Your task to perform on an android device: open wifi settings Image 0: 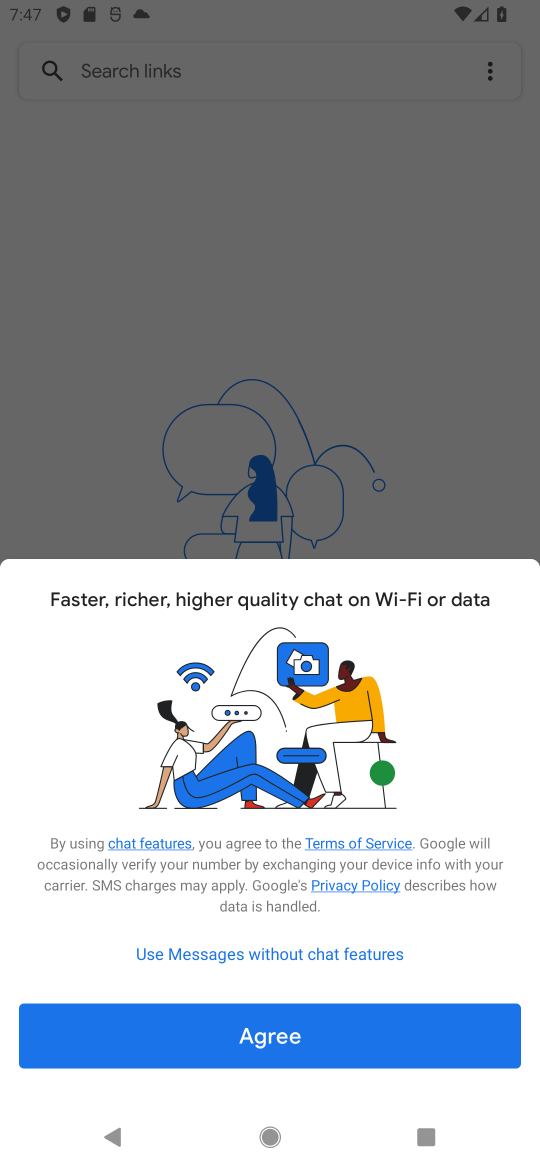
Step 0: press home button
Your task to perform on an android device: open wifi settings Image 1: 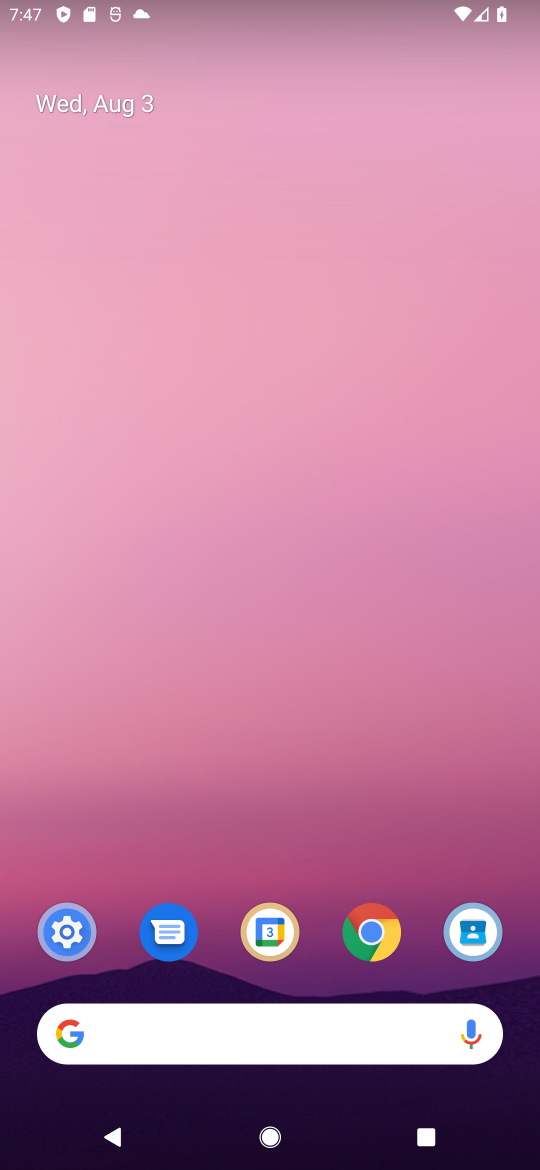
Step 1: click (59, 928)
Your task to perform on an android device: open wifi settings Image 2: 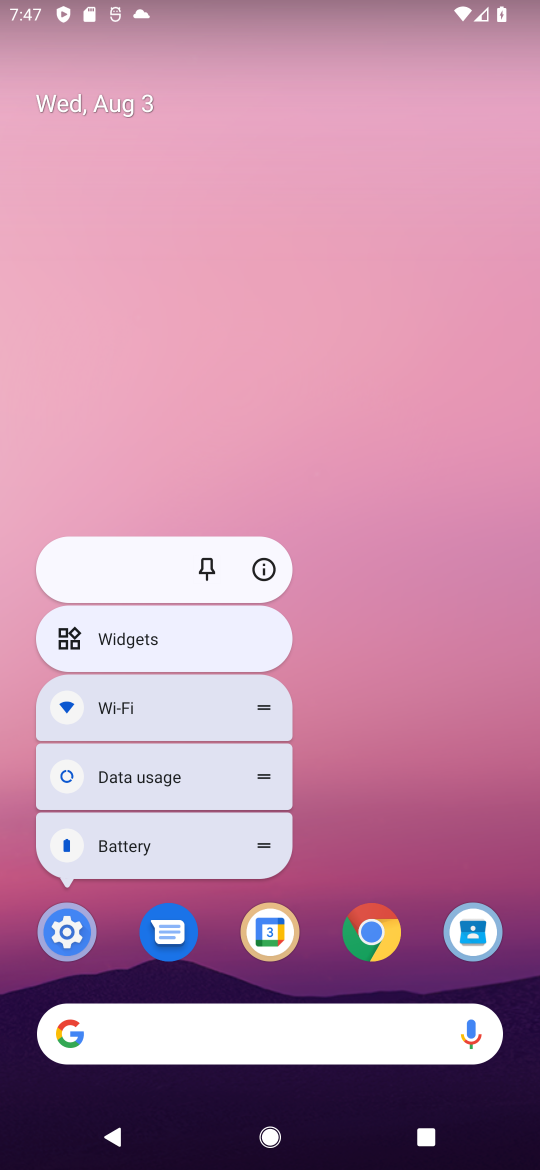
Step 2: click (59, 928)
Your task to perform on an android device: open wifi settings Image 3: 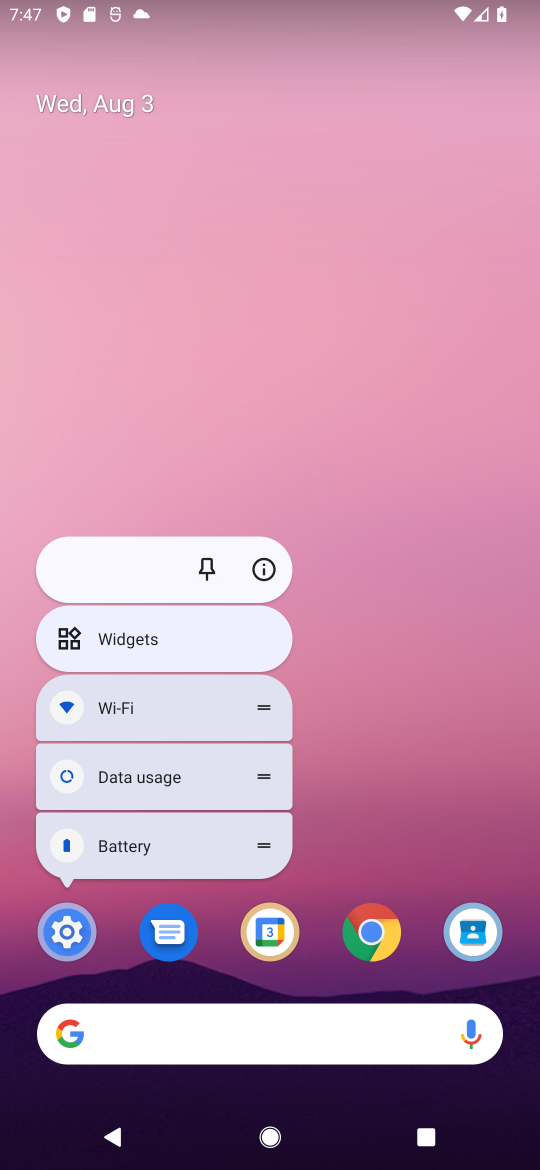
Step 3: click (59, 928)
Your task to perform on an android device: open wifi settings Image 4: 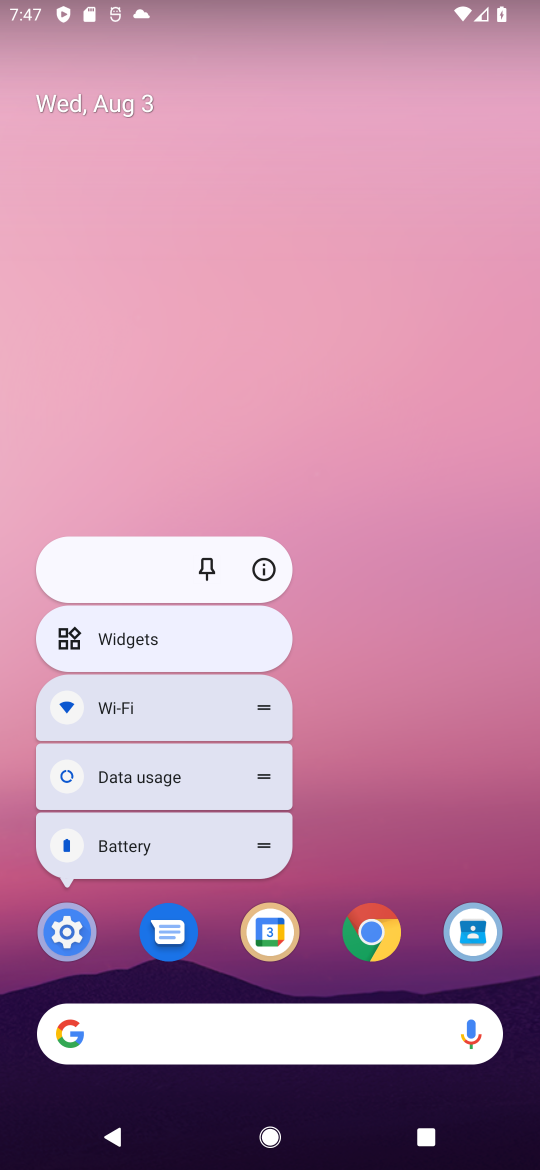
Step 4: click (59, 928)
Your task to perform on an android device: open wifi settings Image 5: 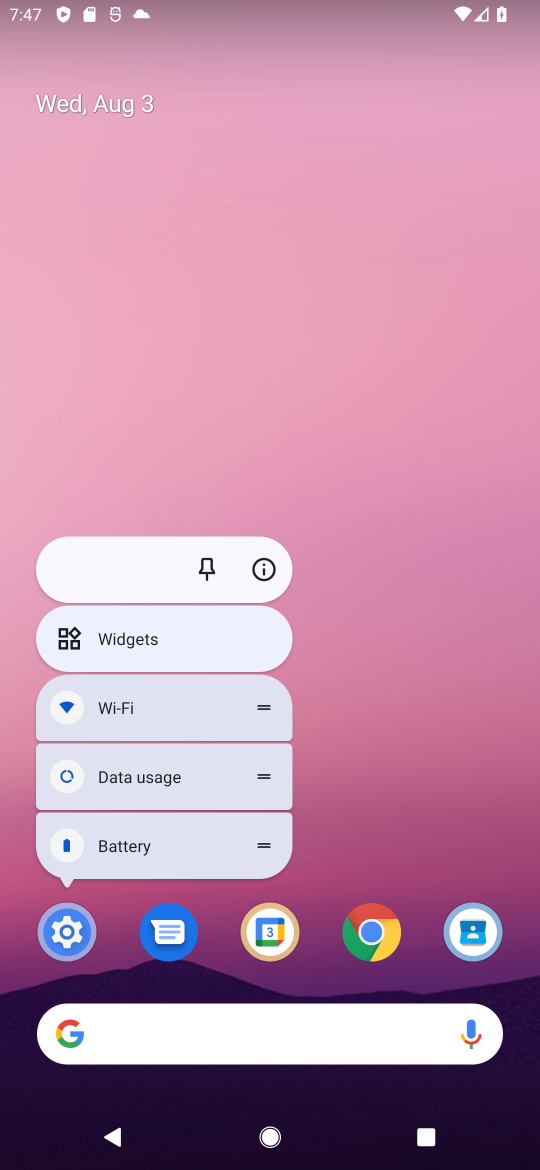
Step 5: click (59, 928)
Your task to perform on an android device: open wifi settings Image 6: 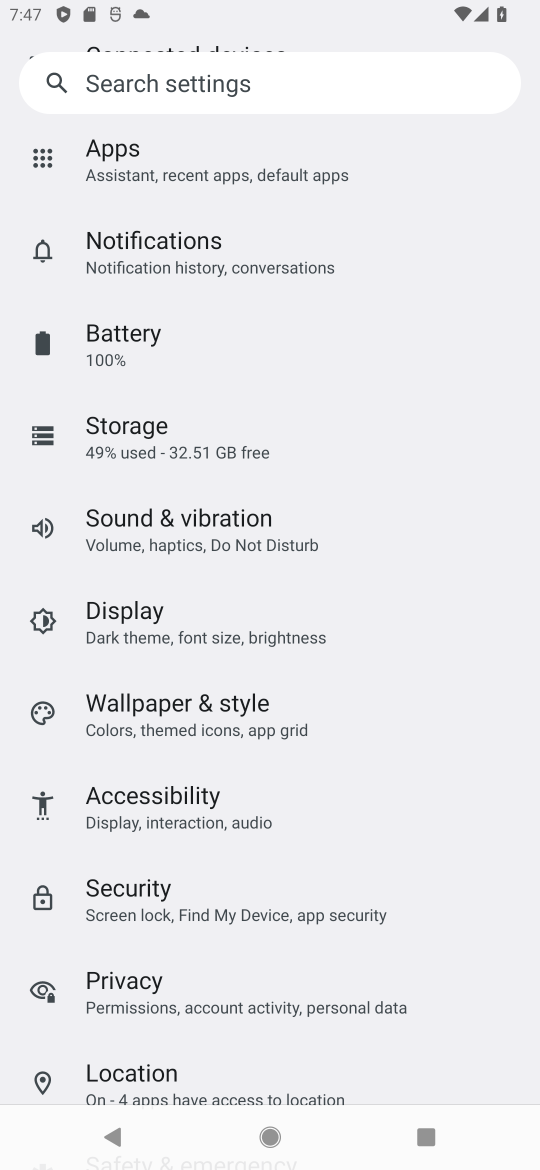
Step 6: drag from (287, 331) to (293, 1143)
Your task to perform on an android device: open wifi settings Image 7: 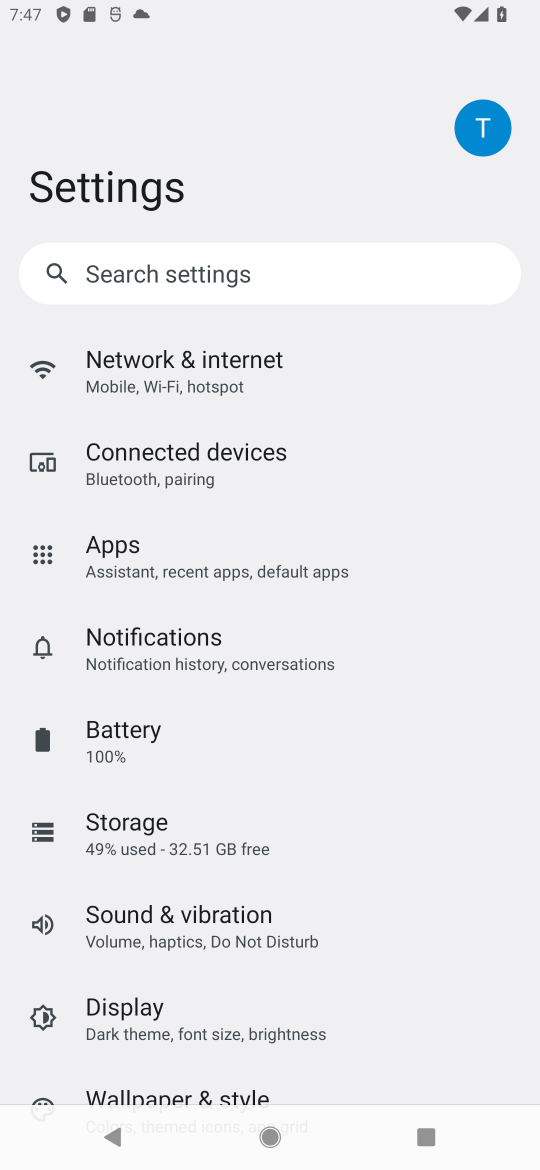
Step 7: click (302, 369)
Your task to perform on an android device: open wifi settings Image 8: 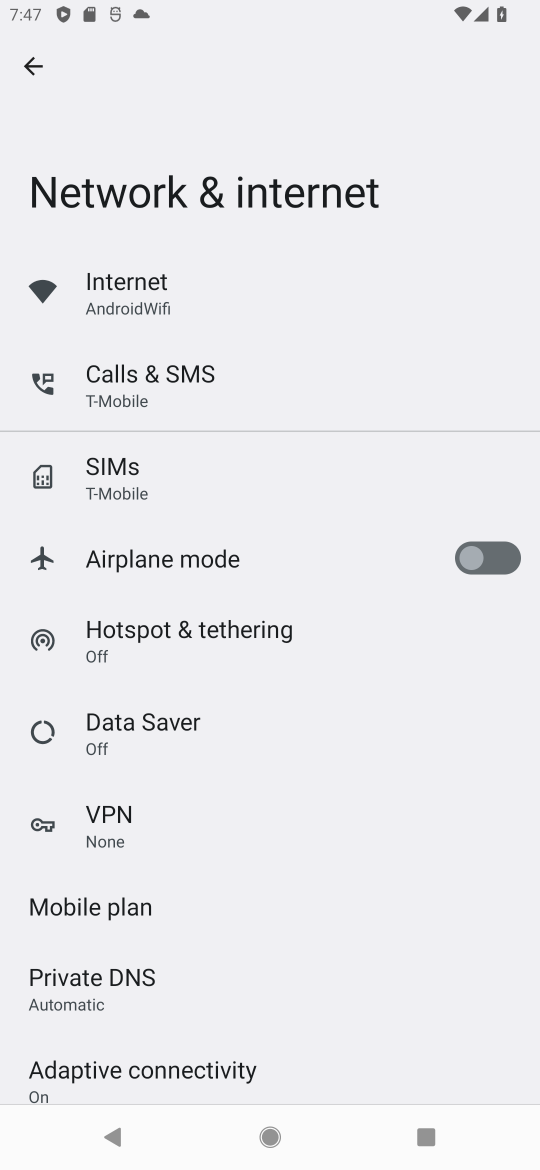
Step 8: click (222, 284)
Your task to perform on an android device: open wifi settings Image 9: 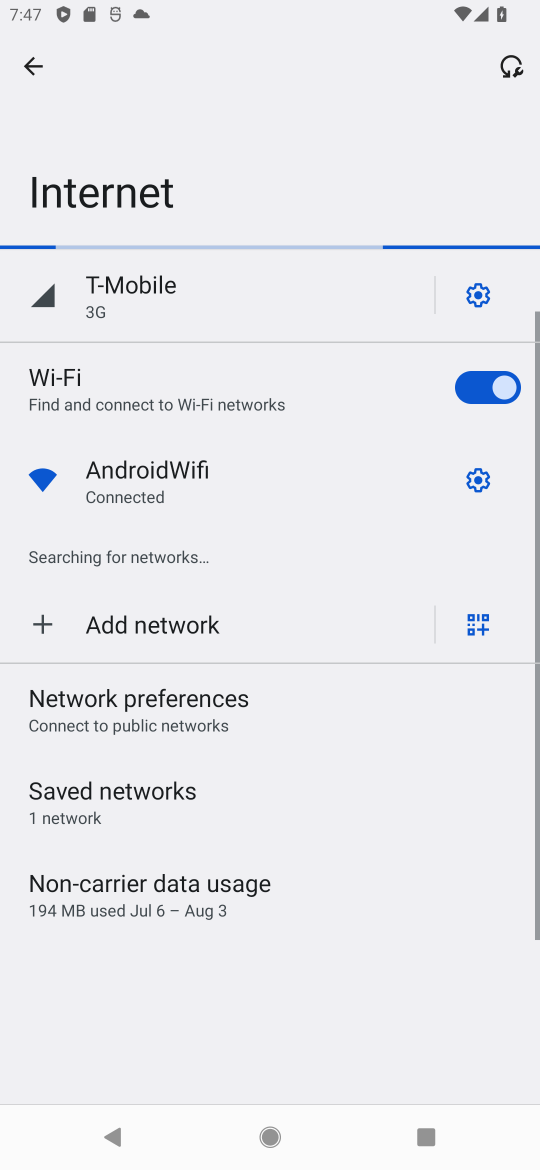
Step 9: click (310, 283)
Your task to perform on an android device: open wifi settings Image 10: 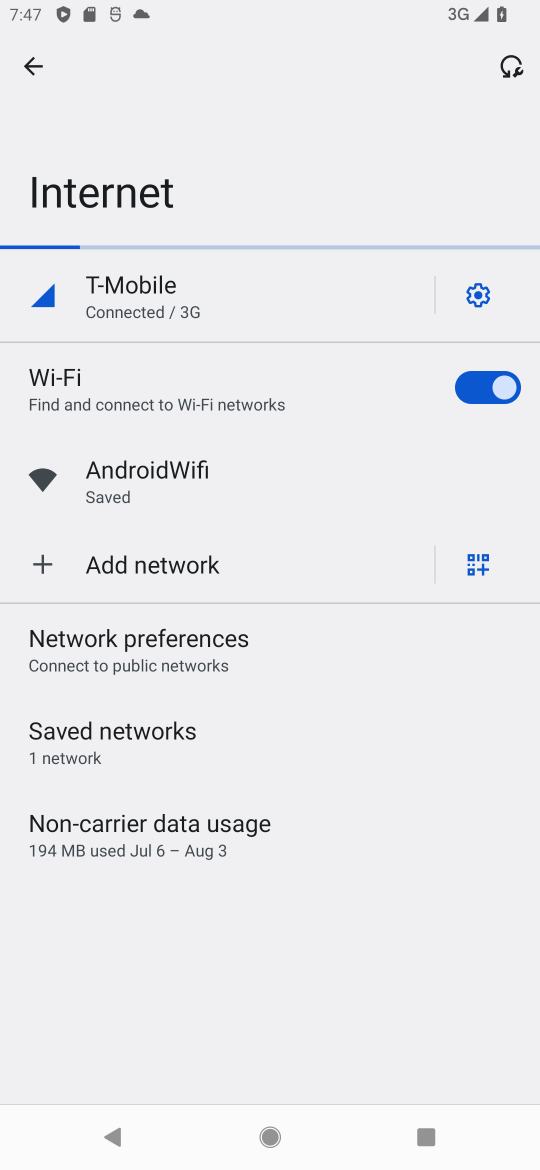
Step 10: click (235, 308)
Your task to perform on an android device: open wifi settings Image 11: 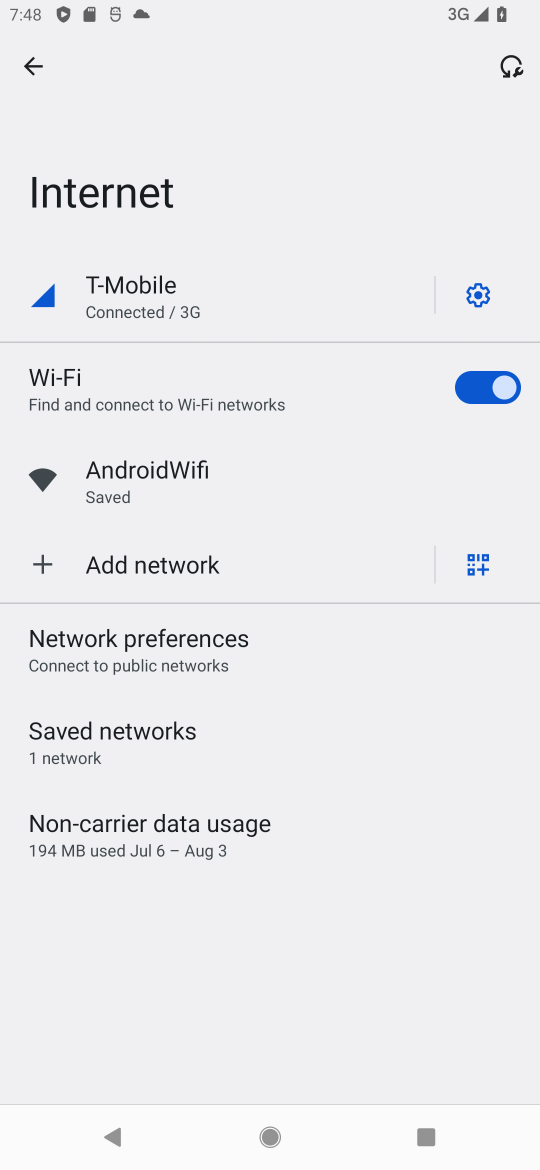
Step 11: task complete